Your task to perform on an android device: show emergency info Image 0: 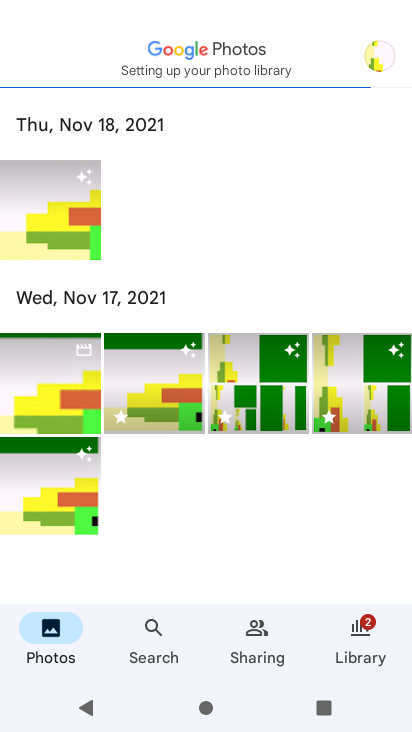
Step 0: press home button
Your task to perform on an android device: show emergency info Image 1: 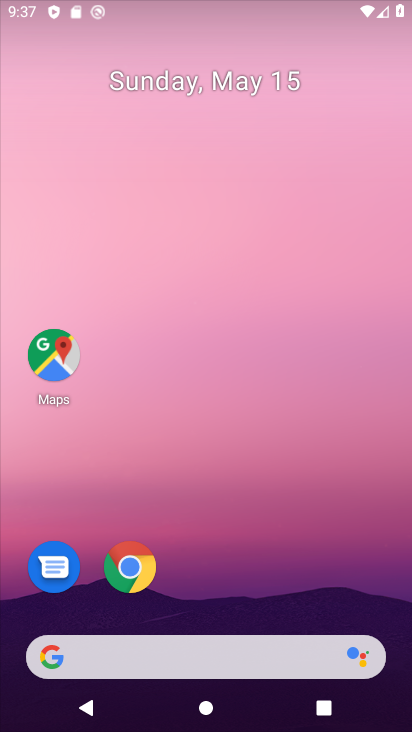
Step 1: drag from (253, 570) to (282, 73)
Your task to perform on an android device: show emergency info Image 2: 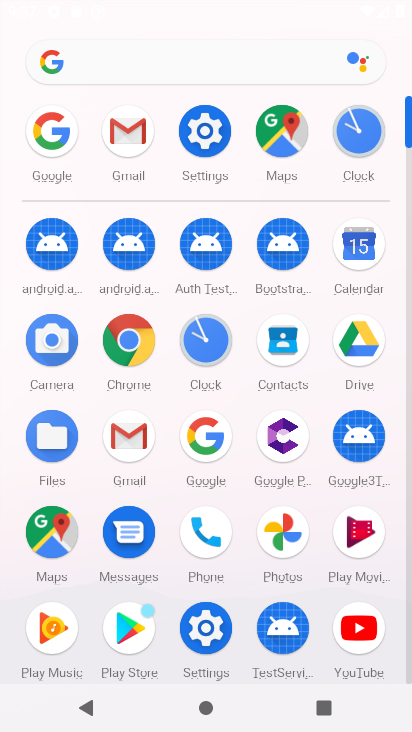
Step 2: click (203, 130)
Your task to perform on an android device: show emergency info Image 3: 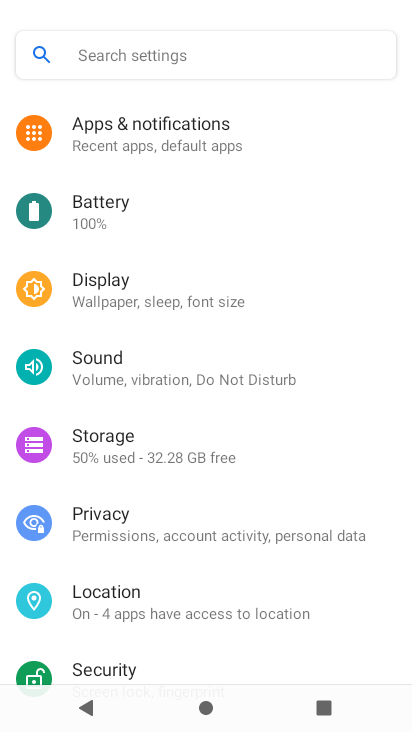
Step 3: drag from (213, 530) to (263, 86)
Your task to perform on an android device: show emergency info Image 4: 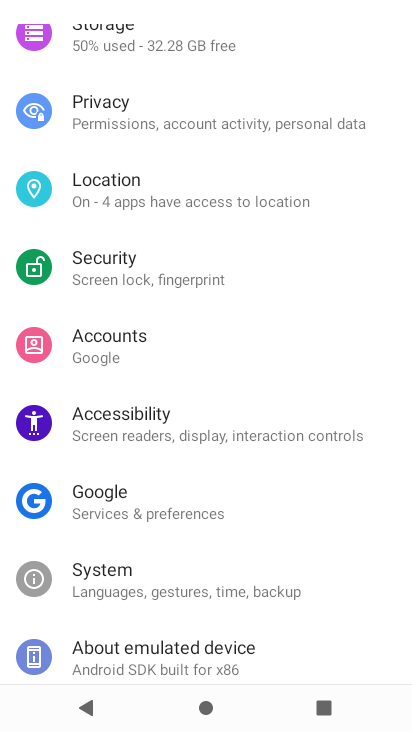
Step 4: drag from (225, 484) to (219, 122)
Your task to perform on an android device: show emergency info Image 5: 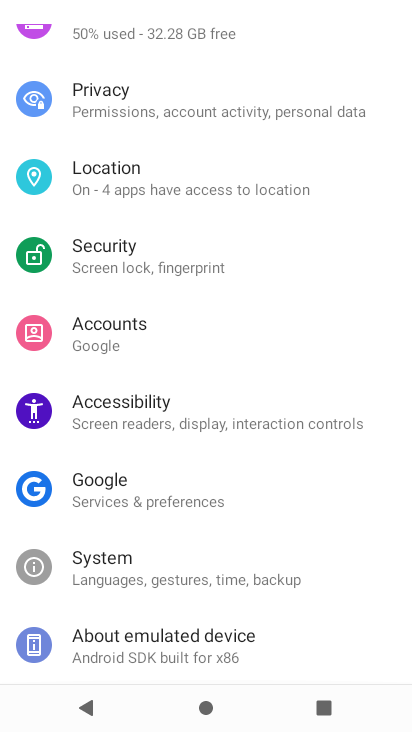
Step 5: click (168, 642)
Your task to perform on an android device: show emergency info Image 6: 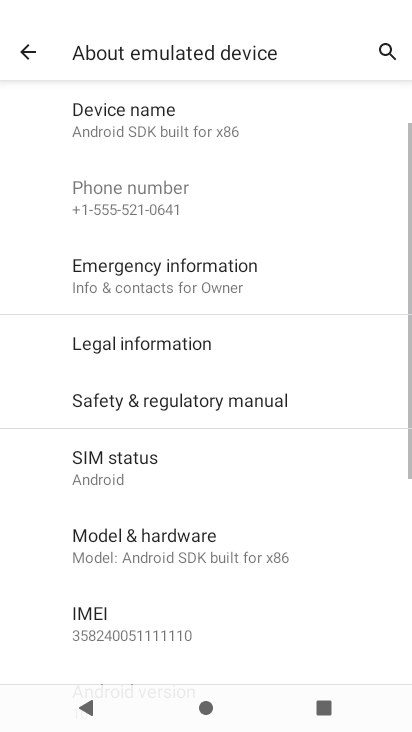
Step 6: click (162, 278)
Your task to perform on an android device: show emergency info Image 7: 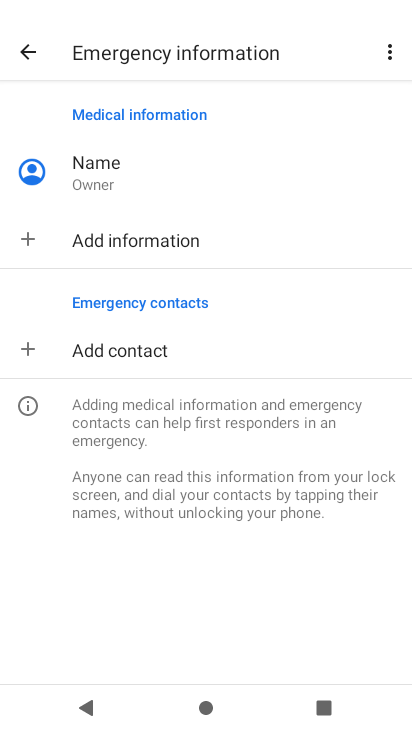
Step 7: task complete